Your task to perform on an android device: Go to eBay Image 0: 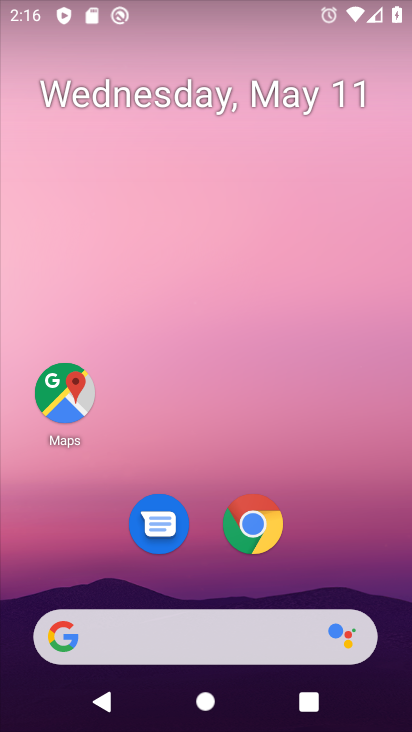
Step 0: click (248, 636)
Your task to perform on an android device: Go to eBay Image 1: 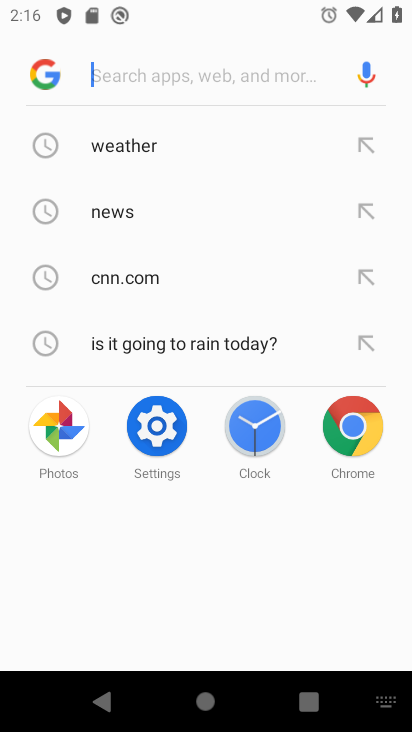
Step 1: type "ebay"
Your task to perform on an android device: Go to eBay Image 2: 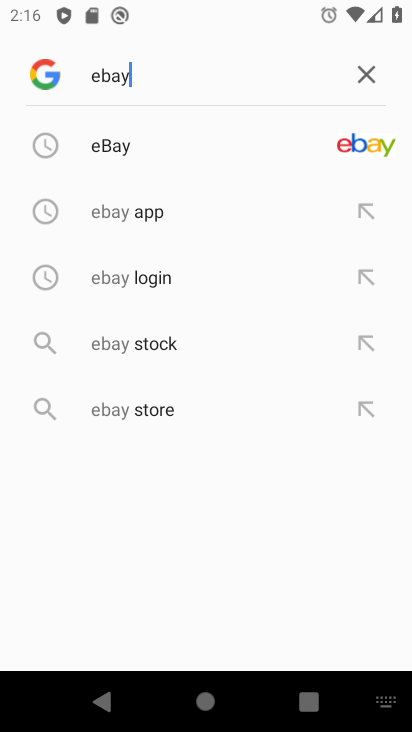
Step 2: click (92, 147)
Your task to perform on an android device: Go to eBay Image 3: 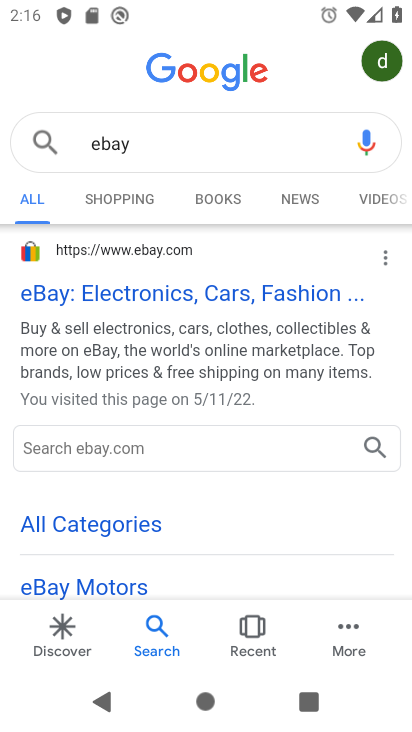
Step 3: click (68, 294)
Your task to perform on an android device: Go to eBay Image 4: 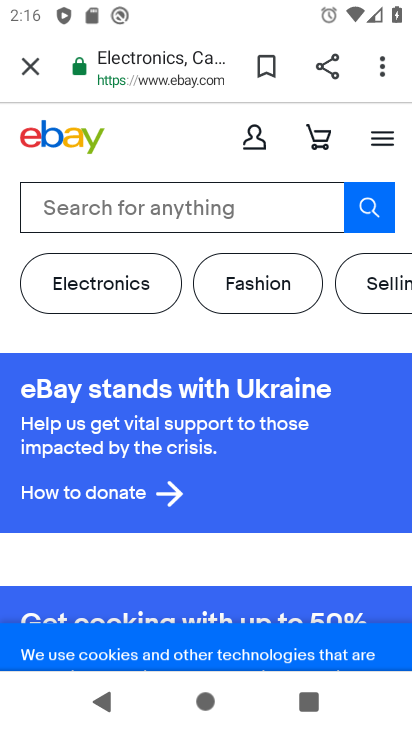
Step 4: task complete